Your task to perform on an android device: Open my contact list Image 0: 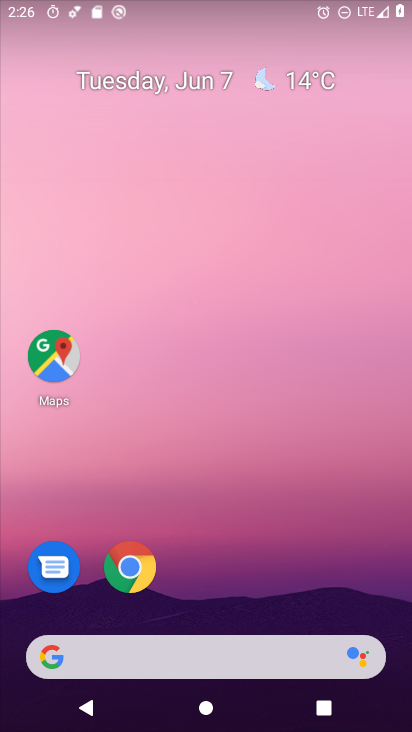
Step 0: drag from (292, 381) to (368, 0)
Your task to perform on an android device: Open my contact list Image 1: 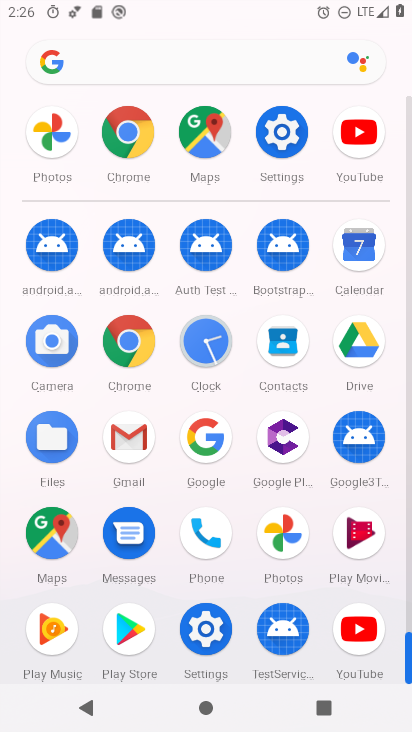
Step 1: click (187, 520)
Your task to perform on an android device: Open my contact list Image 2: 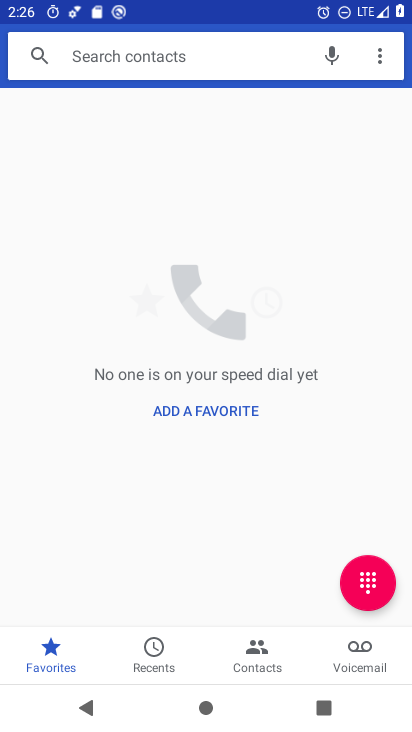
Step 2: click (254, 656)
Your task to perform on an android device: Open my contact list Image 3: 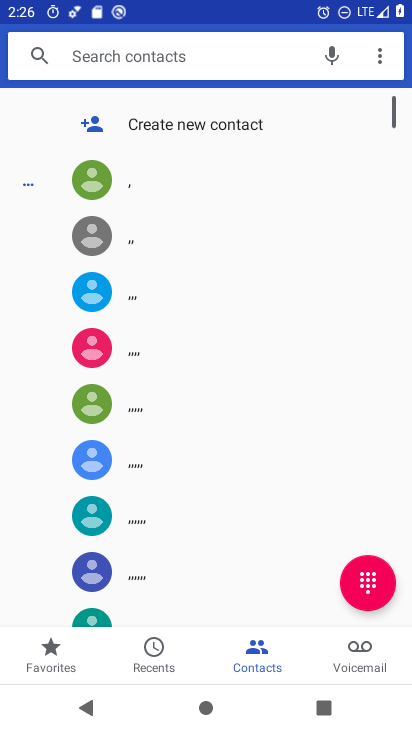
Step 3: task complete